Your task to perform on an android device: check out phone information Image 0: 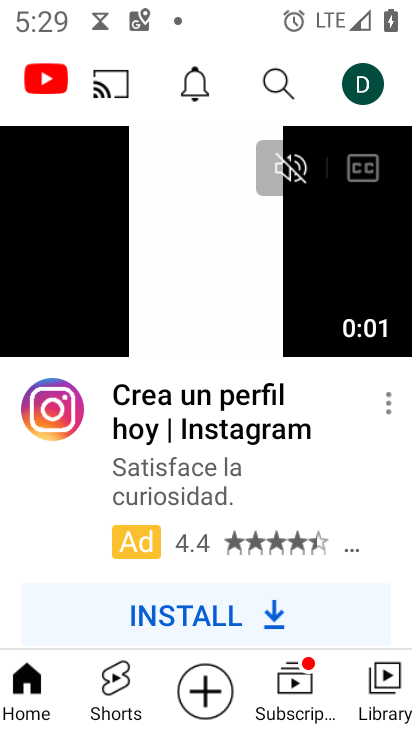
Step 0: press home button
Your task to perform on an android device: check out phone information Image 1: 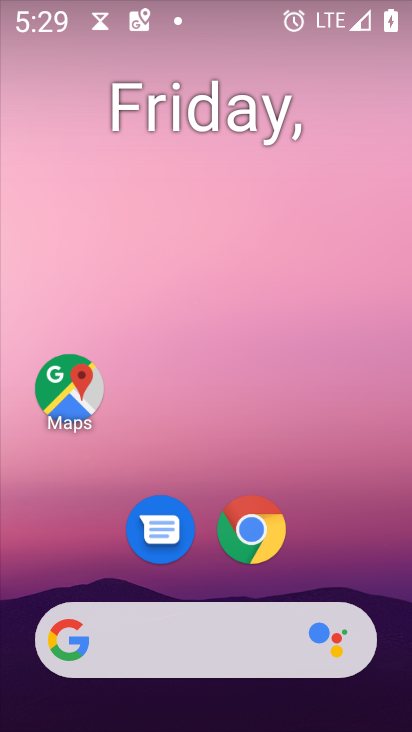
Step 1: drag from (323, 530) to (245, 80)
Your task to perform on an android device: check out phone information Image 2: 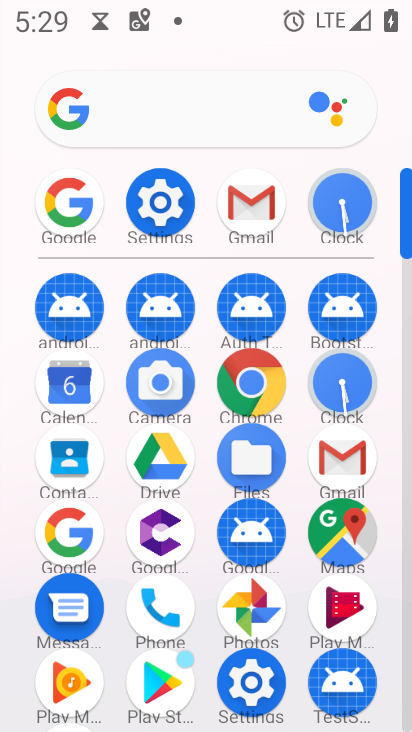
Step 2: click (164, 209)
Your task to perform on an android device: check out phone information Image 3: 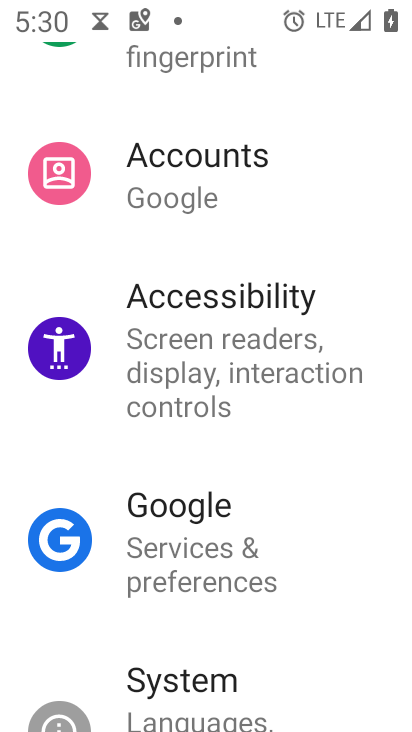
Step 3: drag from (258, 672) to (236, 114)
Your task to perform on an android device: check out phone information Image 4: 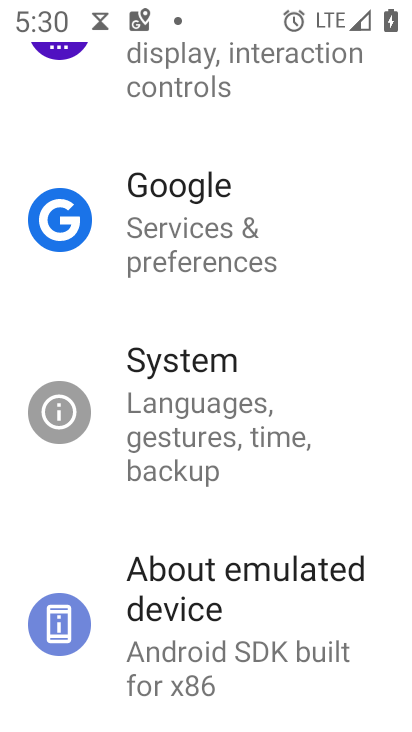
Step 4: click (258, 589)
Your task to perform on an android device: check out phone information Image 5: 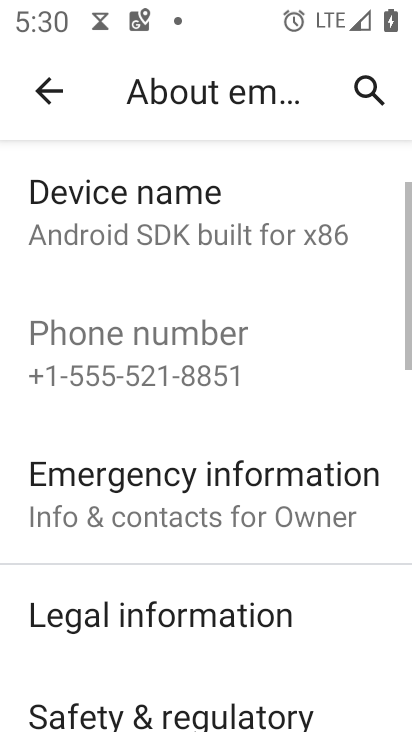
Step 5: task complete